Your task to perform on an android device: Open privacy settings Image 0: 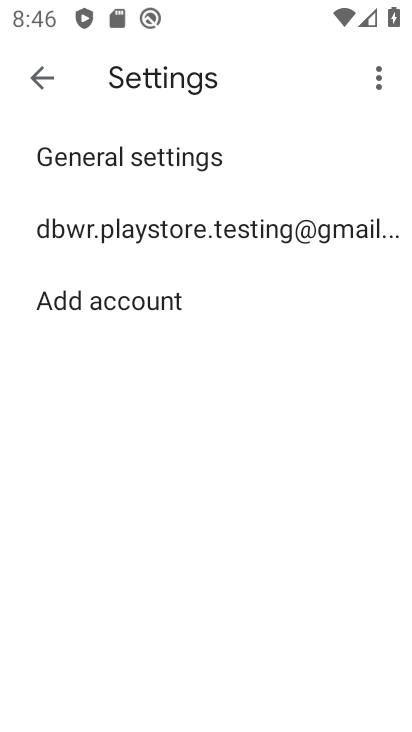
Step 0: press home button
Your task to perform on an android device: Open privacy settings Image 1: 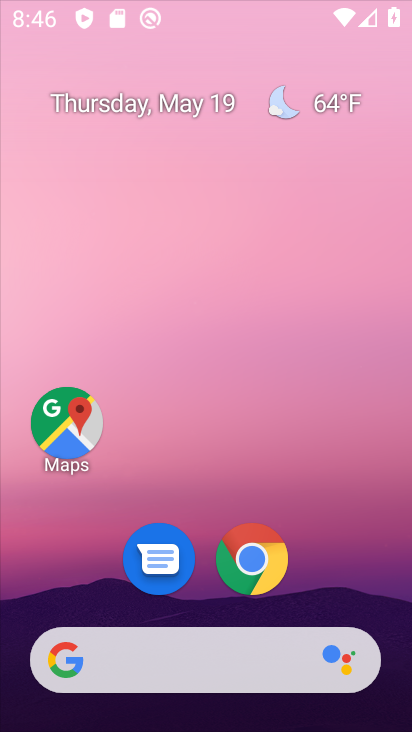
Step 1: drag from (218, 717) to (212, 180)
Your task to perform on an android device: Open privacy settings Image 2: 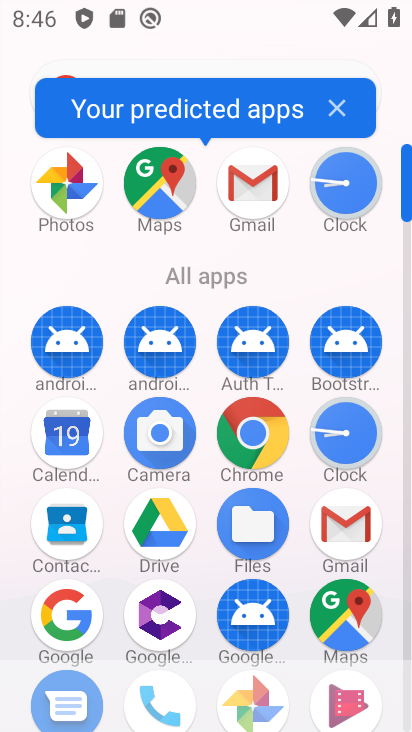
Step 2: drag from (113, 562) to (113, 242)
Your task to perform on an android device: Open privacy settings Image 3: 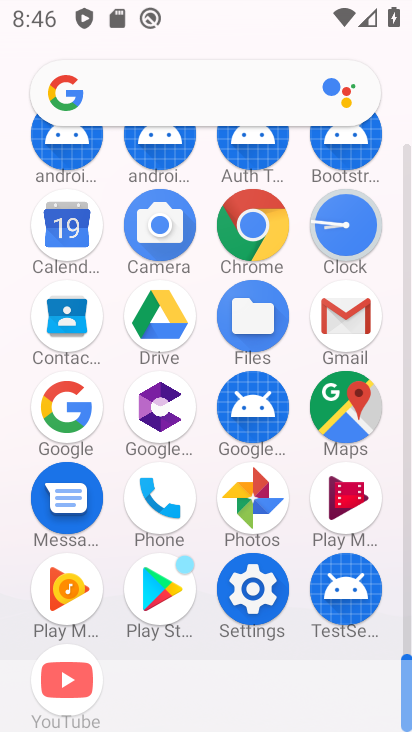
Step 3: click (253, 592)
Your task to perform on an android device: Open privacy settings Image 4: 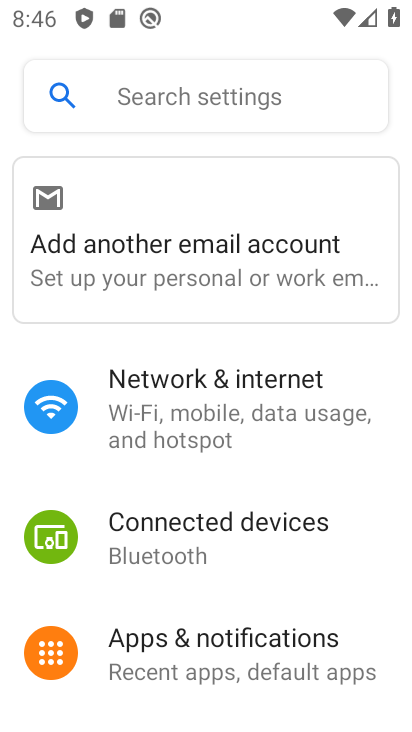
Step 4: drag from (233, 550) to (225, 391)
Your task to perform on an android device: Open privacy settings Image 5: 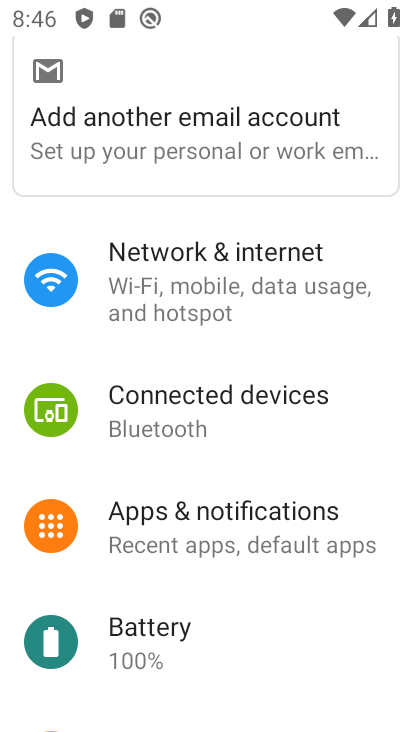
Step 5: drag from (195, 641) to (201, 310)
Your task to perform on an android device: Open privacy settings Image 6: 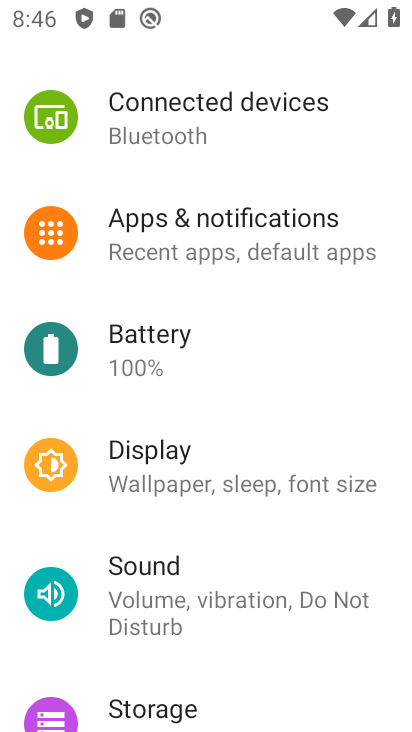
Step 6: drag from (177, 630) to (170, 235)
Your task to perform on an android device: Open privacy settings Image 7: 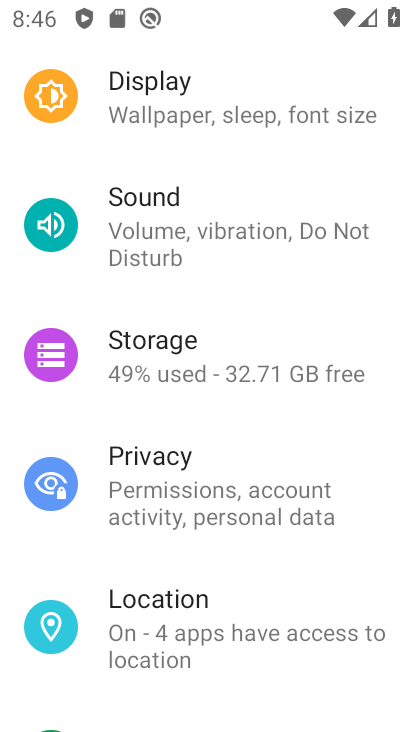
Step 7: click (153, 483)
Your task to perform on an android device: Open privacy settings Image 8: 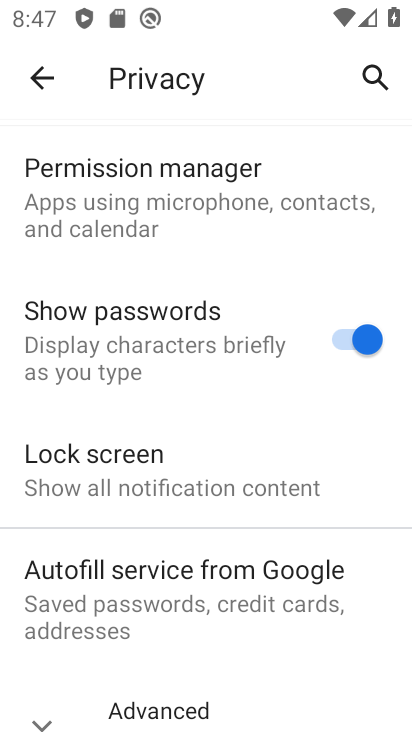
Step 8: task complete